Your task to perform on an android device: turn on javascript in the chrome app Image 0: 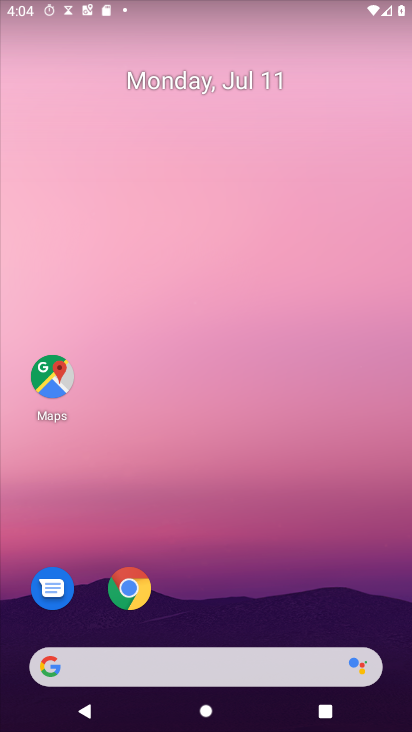
Step 0: click (134, 586)
Your task to perform on an android device: turn on javascript in the chrome app Image 1: 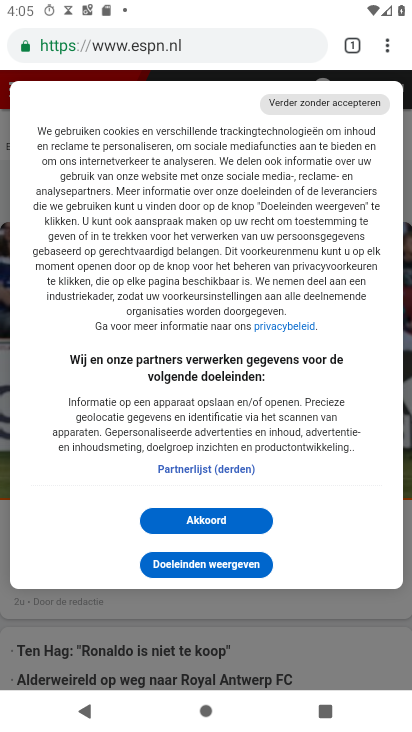
Step 1: click (383, 44)
Your task to perform on an android device: turn on javascript in the chrome app Image 2: 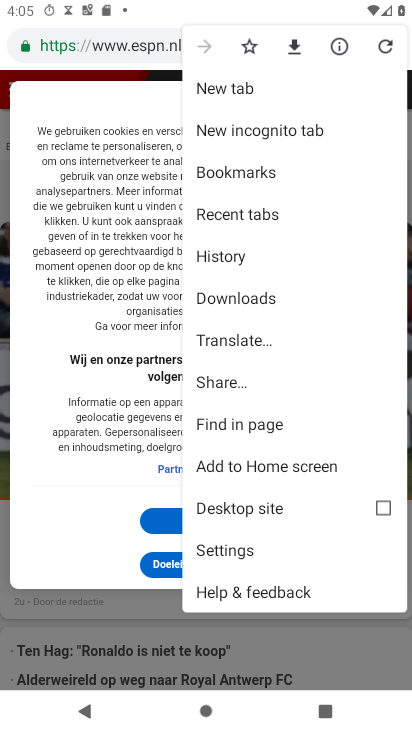
Step 2: click (228, 549)
Your task to perform on an android device: turn on javascript in the chrome app Image 3: 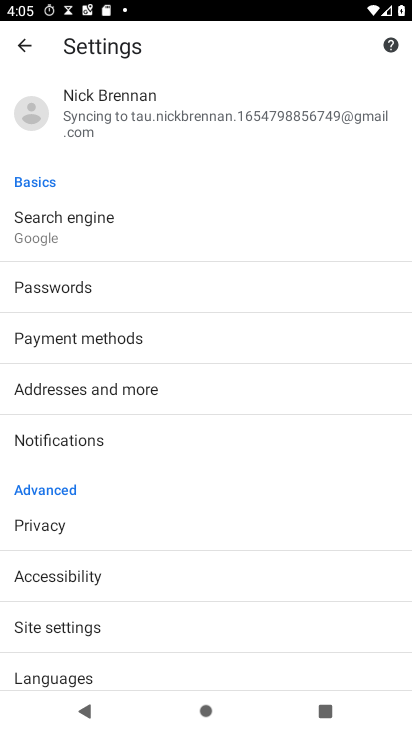
Step 3: click (106, 624)
Your task to perform on an android device: turn on javascript in the chrome app Image 4: 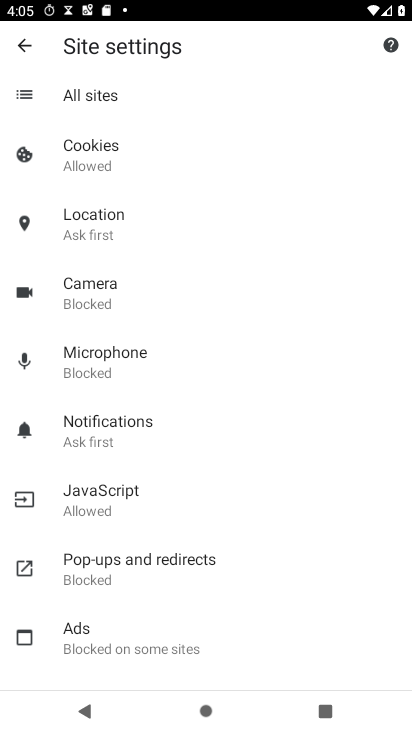
Step 4: click (84, 495)
Your task to perform on an android device: turn on javascript in the chrome app Image 5: 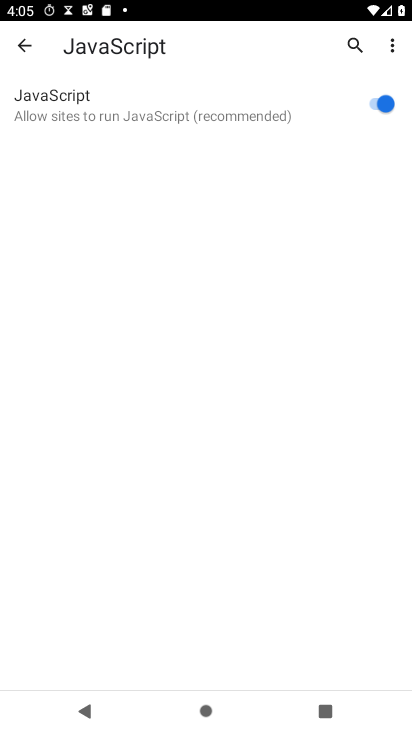
Step 5: task complete